Your task to perform on an android device: Open the stopwatch Image 0: 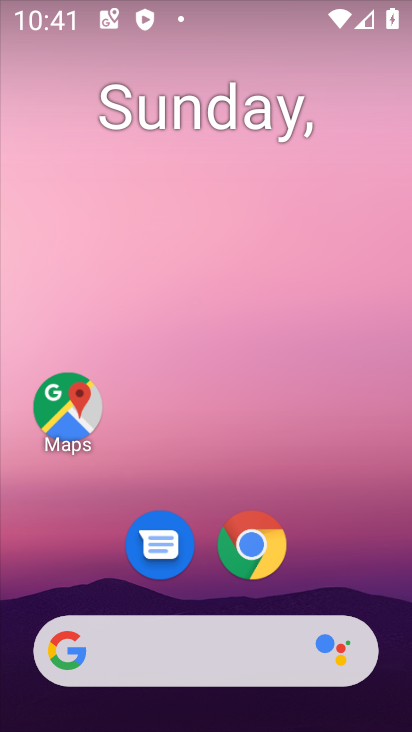
Step 0: drag from (78, 595) to (242, 111)
Your task to perform on an android device: Open the stopwatch Image 1: 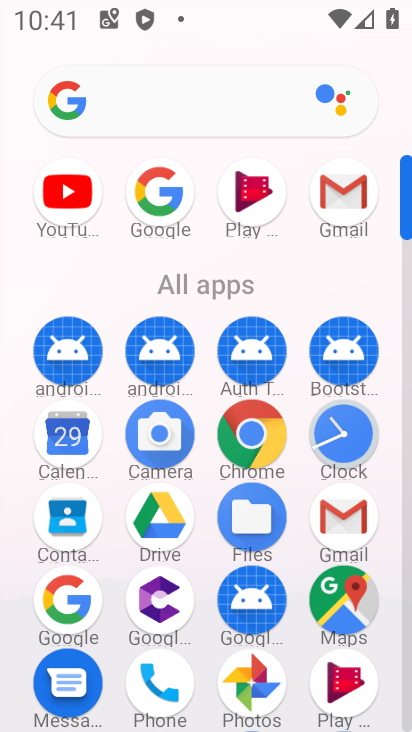
Step 1: click (361, 440)
Your task to perform on an android device: Open the stopwatch Image 2: 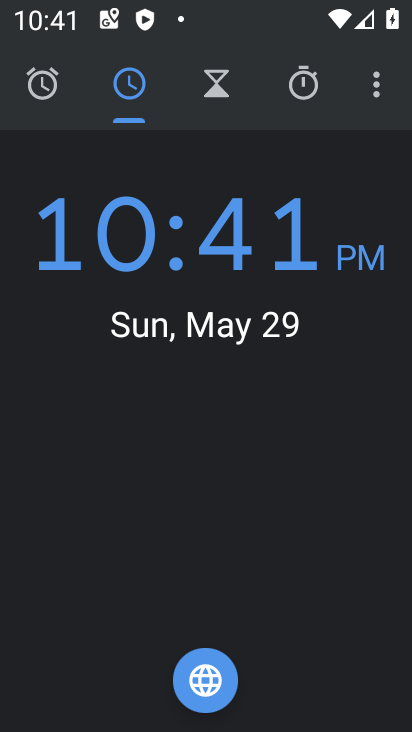
Step 2: click (297, 89)
Your task to perform on an android device: Open the stopwatch Image 3: 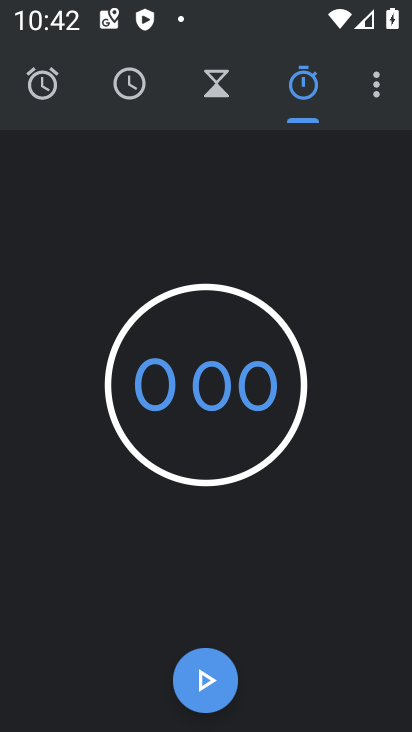
Step 3: task complete